Your task to perform on an android device: change notification settings in the gmail app Image 0: 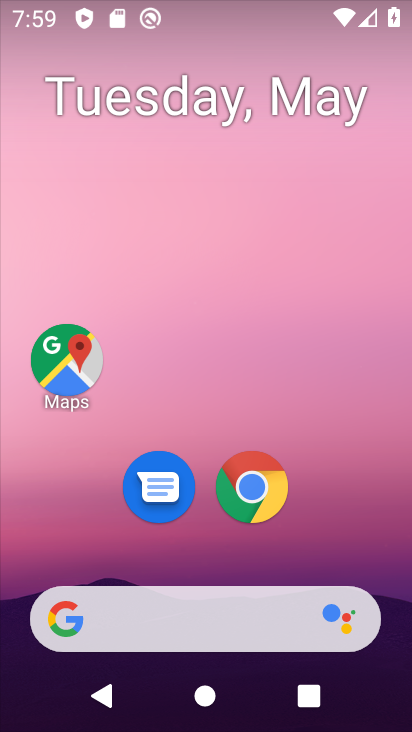
Step 0: drag from (322, 515) to (339, 113)
Your task to perform on an android device: change notification settings in the gmail app Image 1: 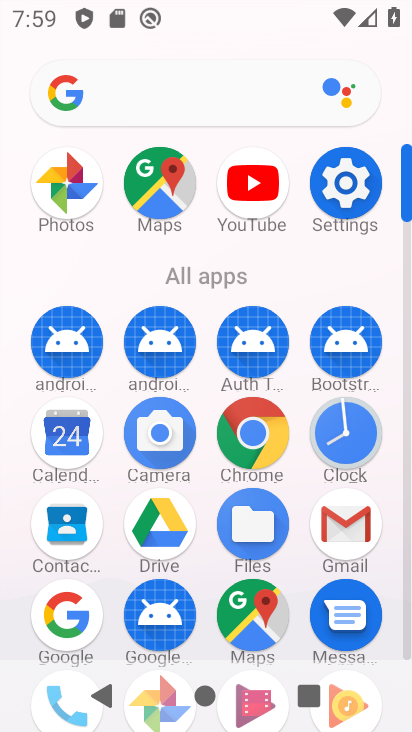
Step 1: click (355, 533)
Your task to perform on an android device: change notification settings in the gmail app Image 2: 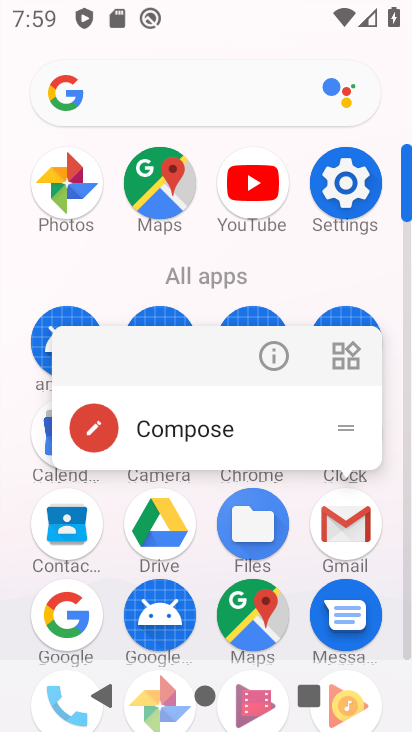
Step 2: click (270, 358)
Your task to perform on an android device: change notification settings in the gmail app Image 3: 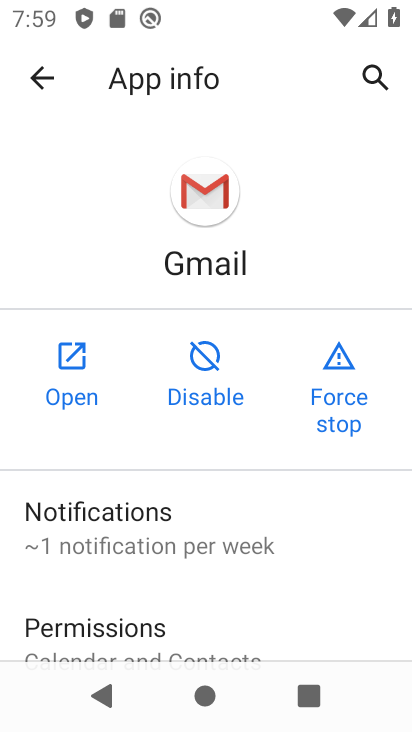
Step 3: click (185, 513)
Your task to perform on an android device: change notification settings in the gmail app Image 4: 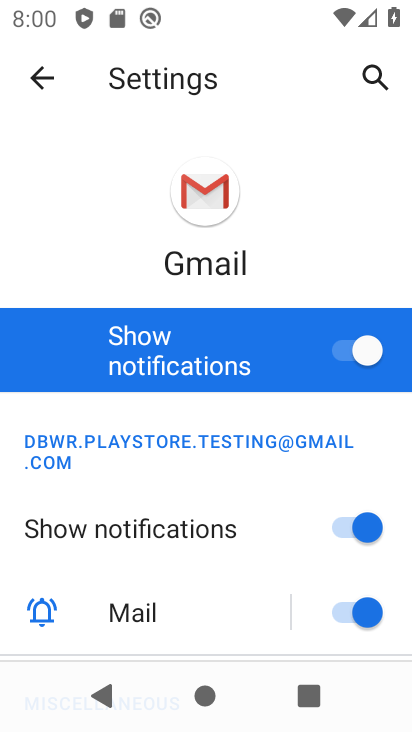
Step 4: click (350, 346)
Your task to perform on an android device: change notification settings in the gmail app Image 5: 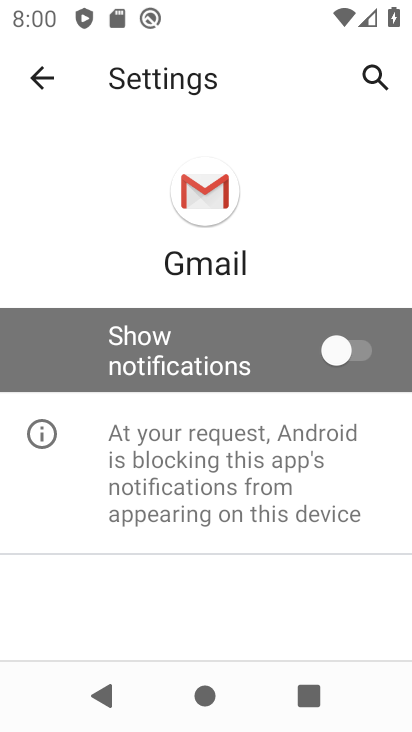
Step 5: task complete